Your task to perform on an android device: Go to CNN.com Image 0: 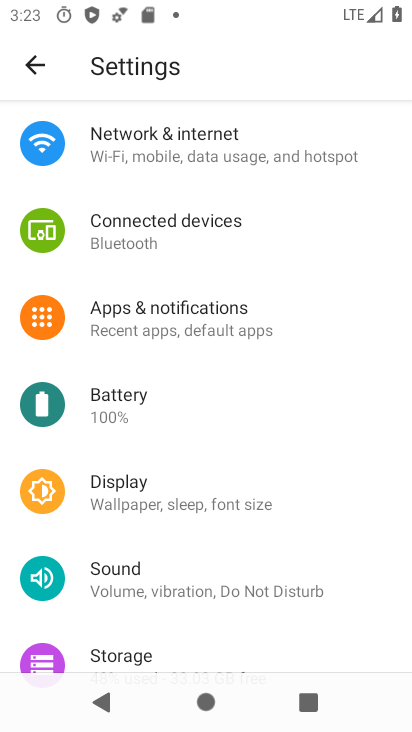
Step 0: press home button
Your task to perform on an android device: Go to CNN.com Image 1: 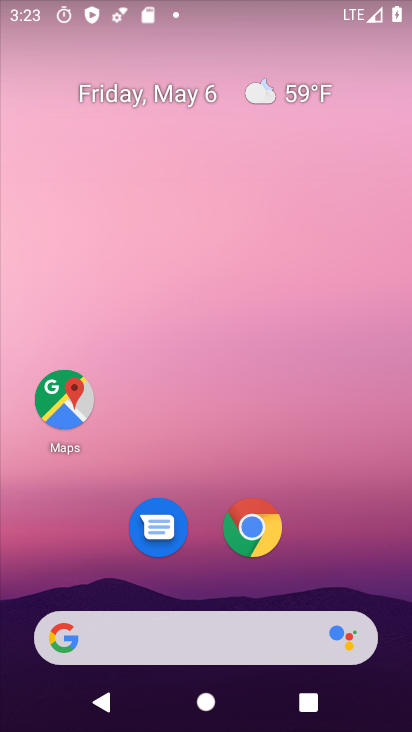
Step 1: click (227, 542)
Your task to perform on an android device: Go to CNN.com Image 2: 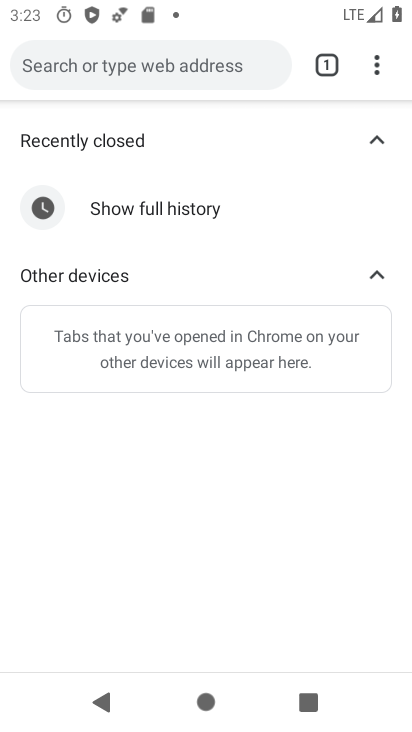
Step 2: click (182, 66)
Your task to perform on an android device: Go to CNN.com Image 3: 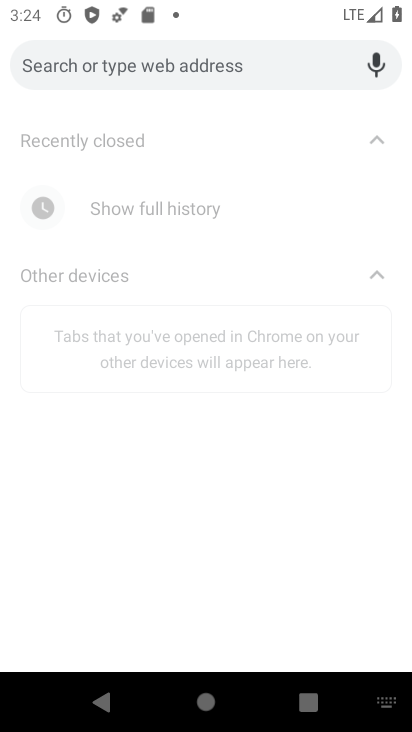
Step 3: type "www.cnn.com"
Your task to perform on an android device: Go to CNN.com Image 4: 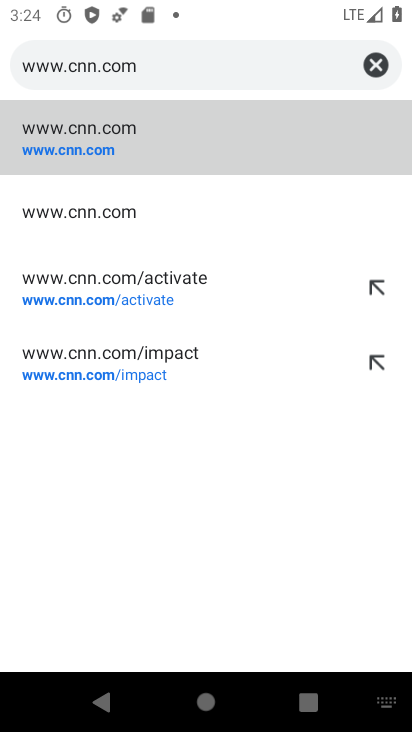
Step 4: click (124, 140)
Your task to perform on an android device: Go to CNN.com Image 5: 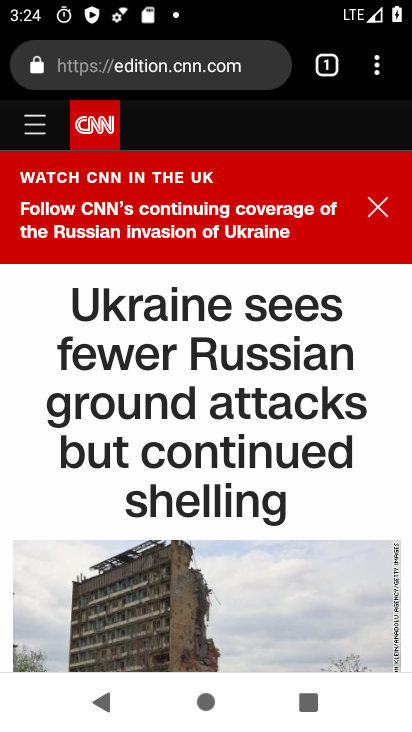
Step 5: task complete